Your task to perform on an android device: Open the map Image 0: 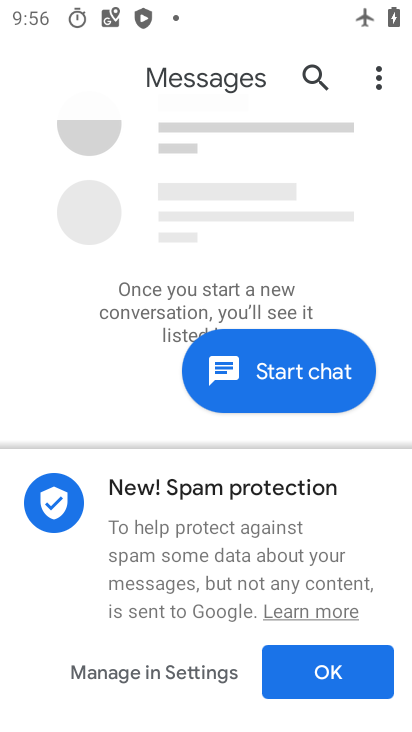
Step 0: press home button
Your task to perform on an android device: Open the map Image 1: 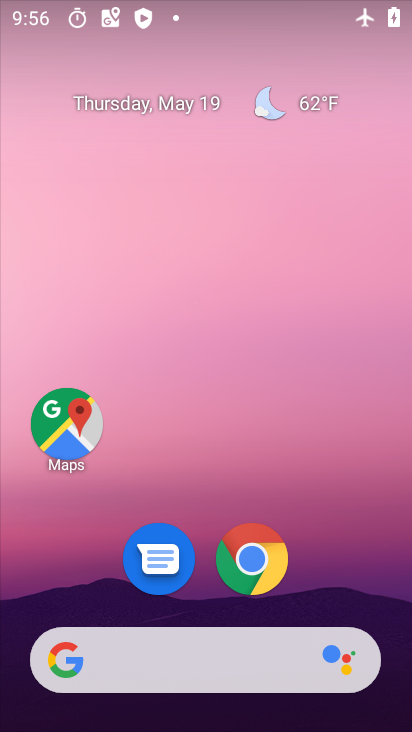
Step 1: click (60, 430)
Your task to perform on an android device: Open the map Image 2: 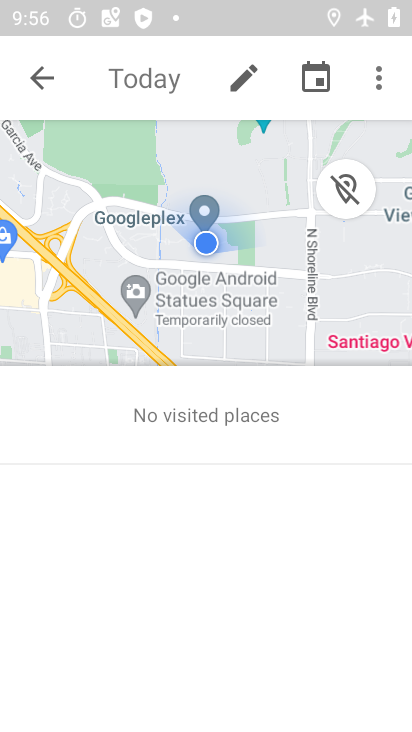
Step 2: task complete